Your task to perform on an android device: Open battery settings Image 0: 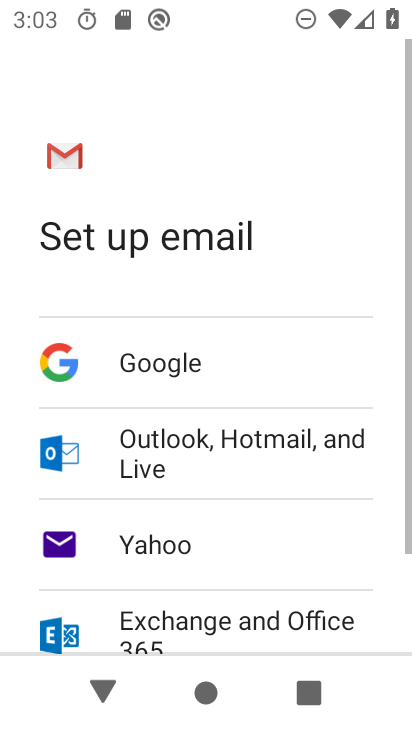
Step 0: press home button
Your task to perform on an android device: Open battery settings Image 1: 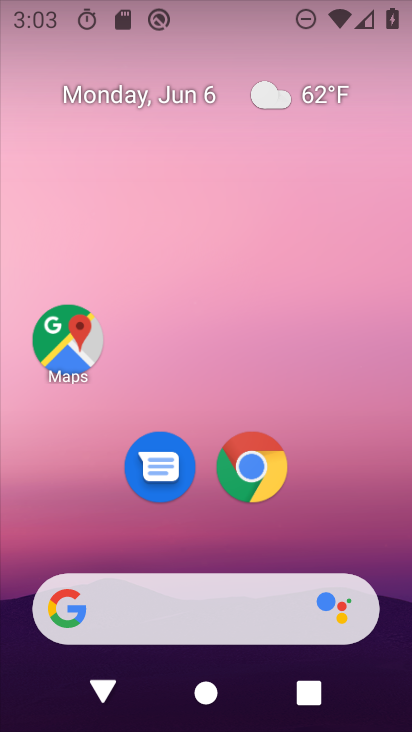
Step 1: drag from (235, 549) to (217, 114)
Your task to perform on an android device: Open battery settings Image 2: 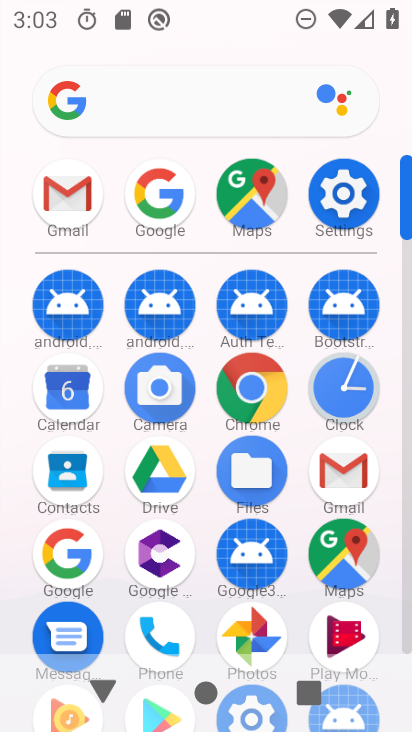
Step 2: click (341, 194)
Your task to perform on an android device: Open battery settings Image 3: 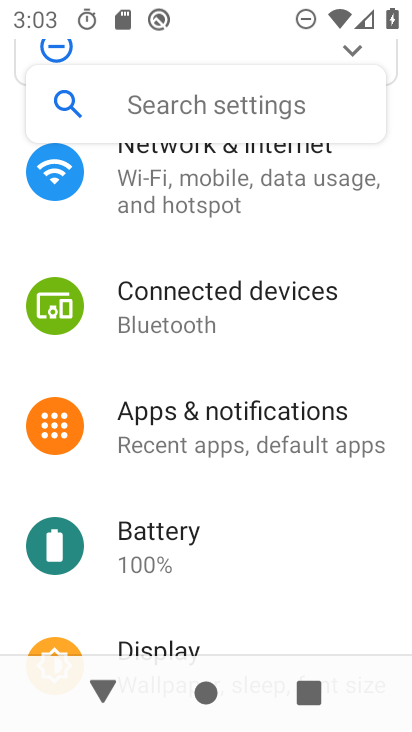
Step 3: click (164, 521)
Your task to perform on an android device: Open battery settings Image 4: 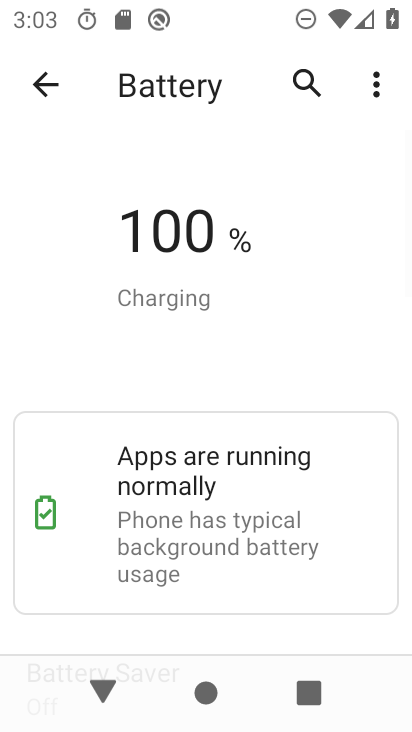
Step 4: task complete